Your task to perform on an android device: set default search engine in the chrome app Image 0: 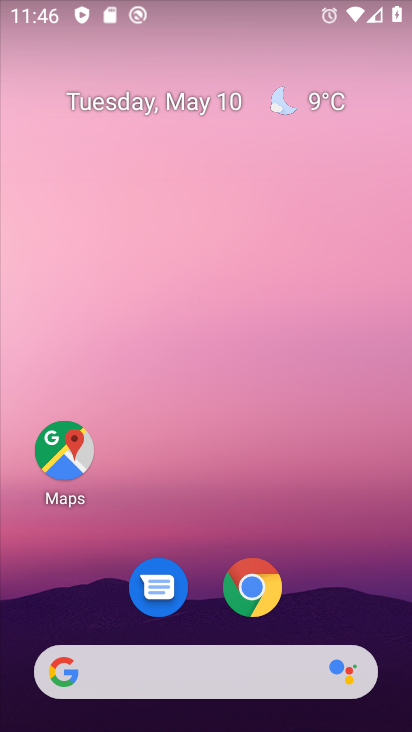
Step 0: click (252, 600)
Your task to perform on an android device: set default search engine in the chrome app Image 1: 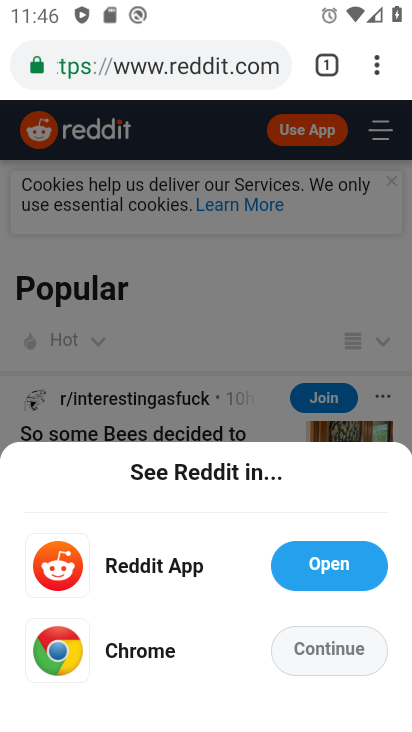
Step 1: drag from (377, 62) to (206, 638)
Your task to perform on an android device: set default search engine in the chrome app Image 2: 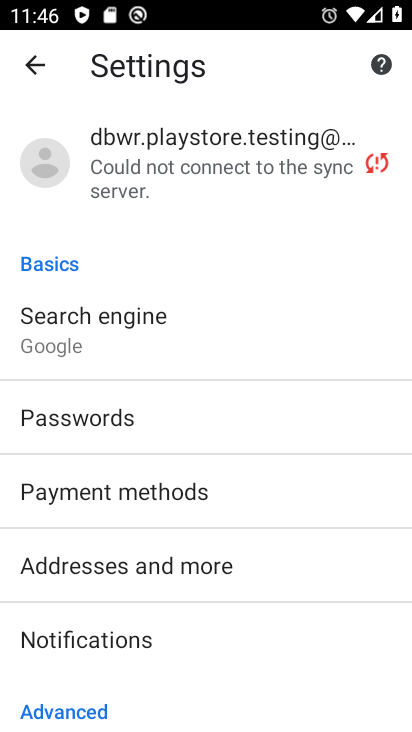
Step 2: click (57, 341)
Your task to perform on an android device: set default search engine in the chrome app Image 3: 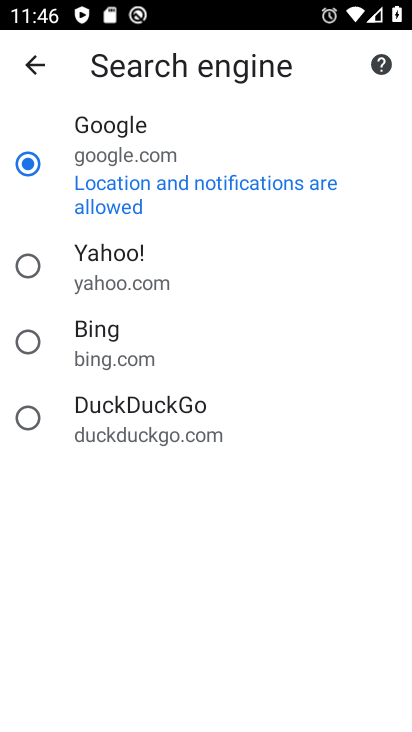
Step 3: click (28, 258)
Your task to perform on an android device: set default search engine in the chrome app Image 4: 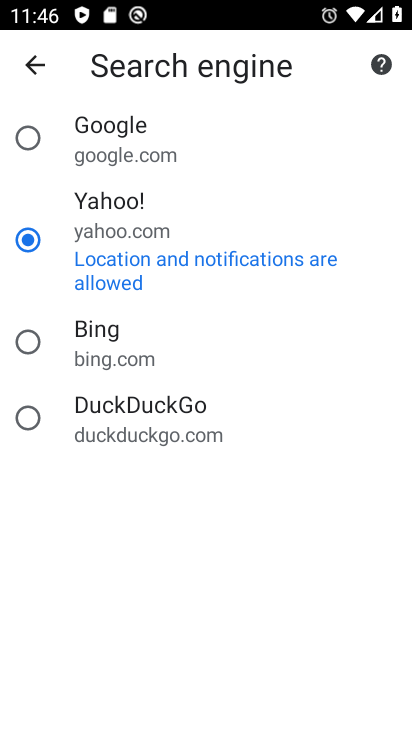
Step 4: task complete